Your task to perform on an android device: turn pop-ups on in chrome Image 0: 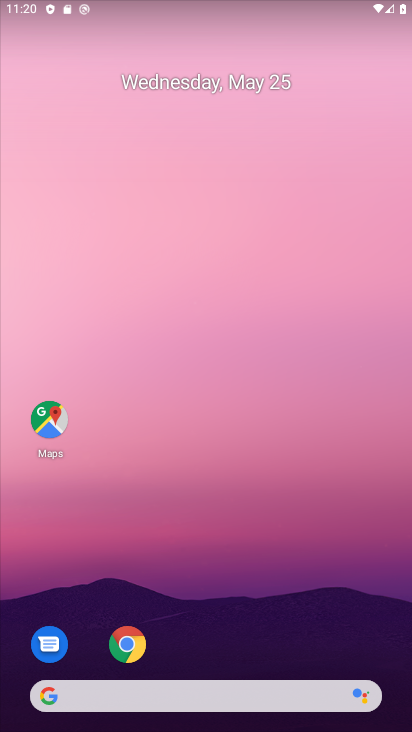
Step 0: click (134, 642)
Your task to perform on an android device: turn pop-ups on in chrome Image 1: 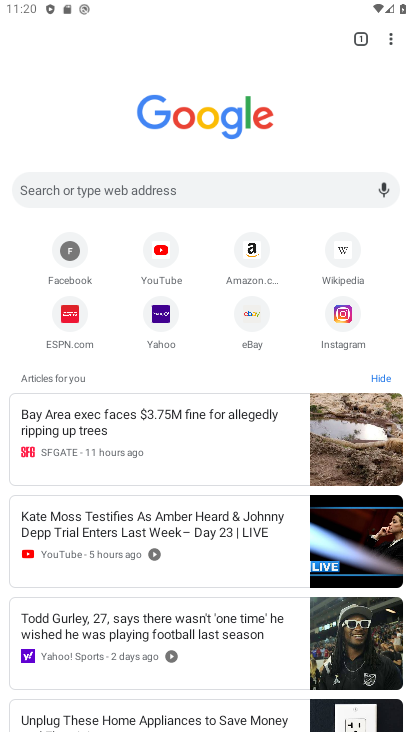
Step 1: click (391, 28)
Your task to perform on an android device: turn pop-ups on in chrome Image 2: 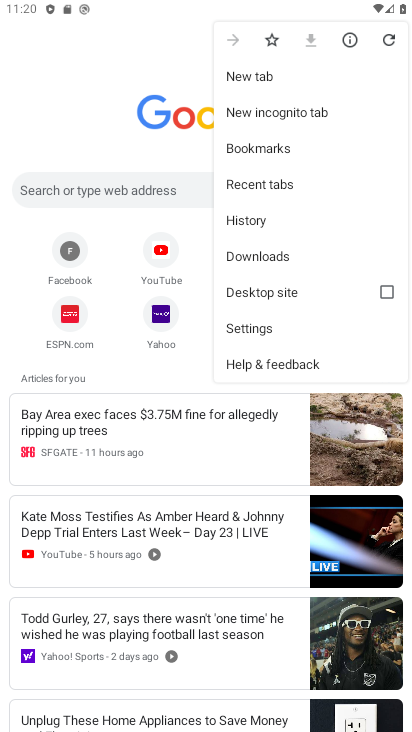
Step 2: click (262, 329)
Your task to perform on an android device: turn pop-ups on in chrome Image 3: 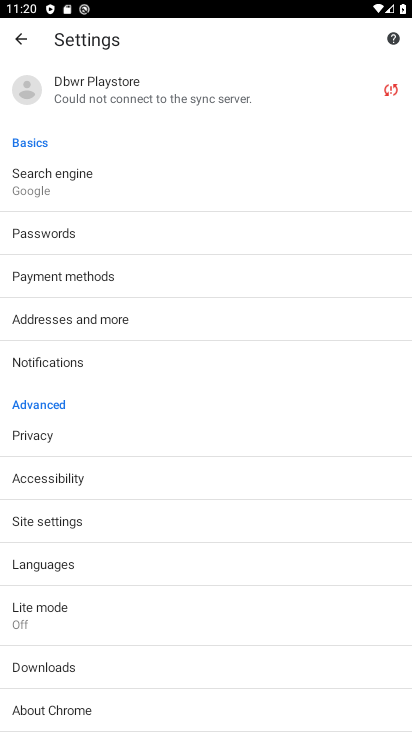
Step 3: click (83, 515)
Your task to perform on an android device: turn pop-ups on in chrome Image 4: 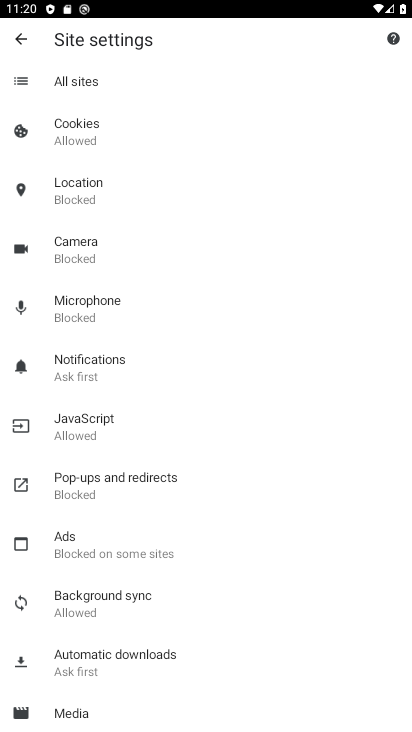
Step 4: click (116, 486)
Your task to perform on an android device: turn pop-ups on in chrome Image 5: 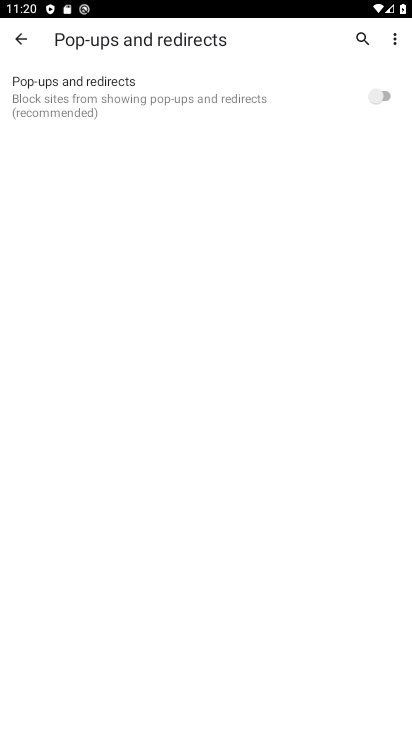
Step 5: click (375, 92)
Your task to perform on an android device: turn pop-ups on in chrome Image 6: 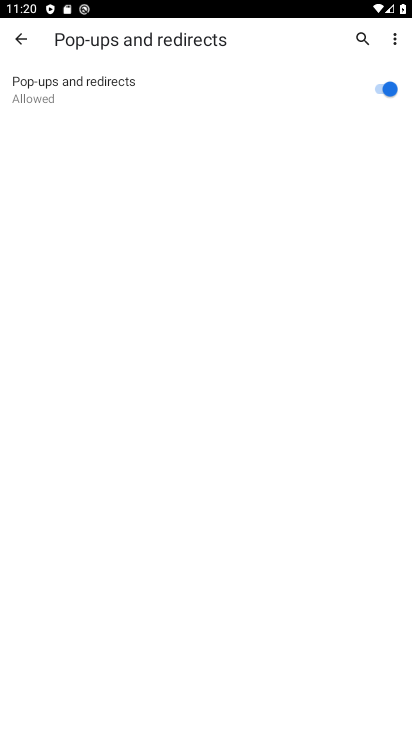
Step 6: task complete